Your task to perform on an android device: Open Android settings Image 0: 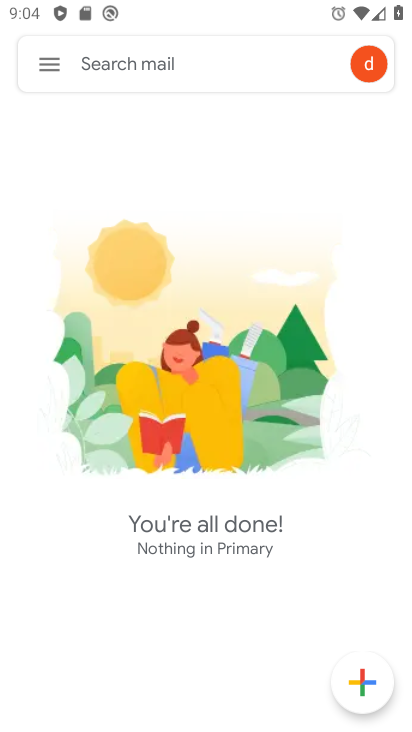
Step 0: press home button
Your task to perform on an android device: Open Android settings Image 1: 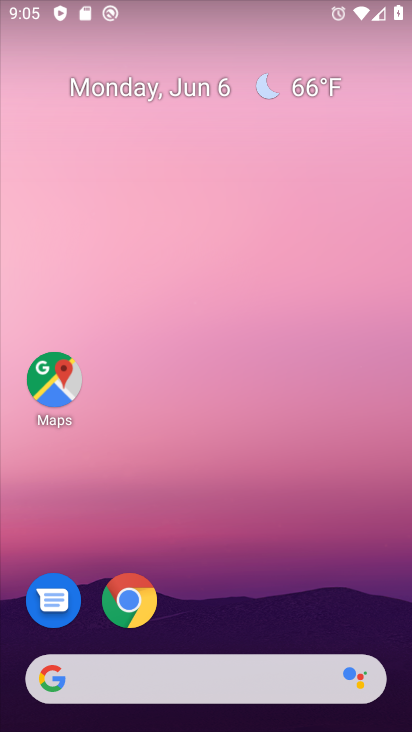
Step 1: drag from (118, 548) to (309, 162)
Your task to perform on an android device: Open Android settings Image 2: 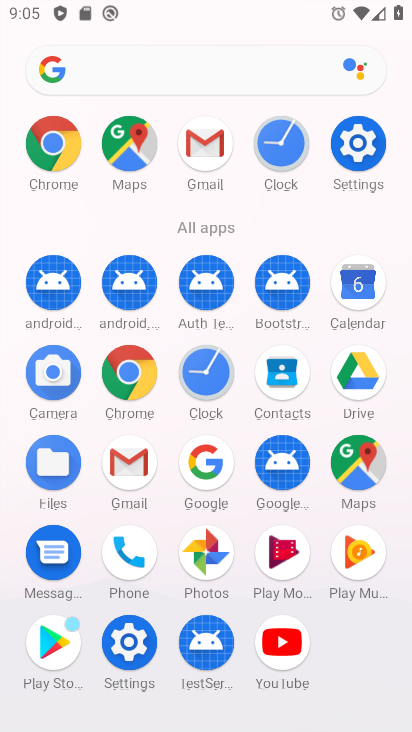
Step 2: click (373, 158)
Your task to perform on an android device: Open Android settings Image 3: 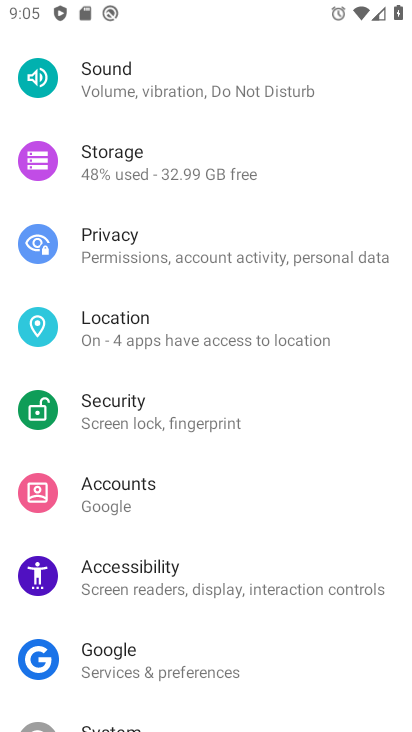
Step 3: drag from (12, 527) to (267, 189)
Your task to perform on an android device: Open Android settings Image 4: 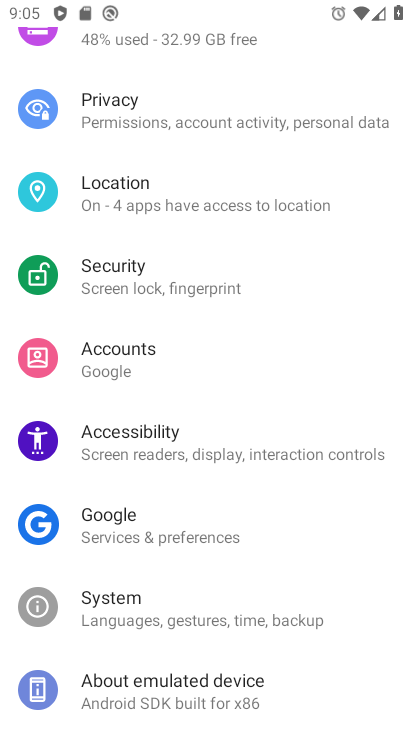
Step 4: click (80, 703)
Your task to perform on an android device: Open Android settings Image 5: 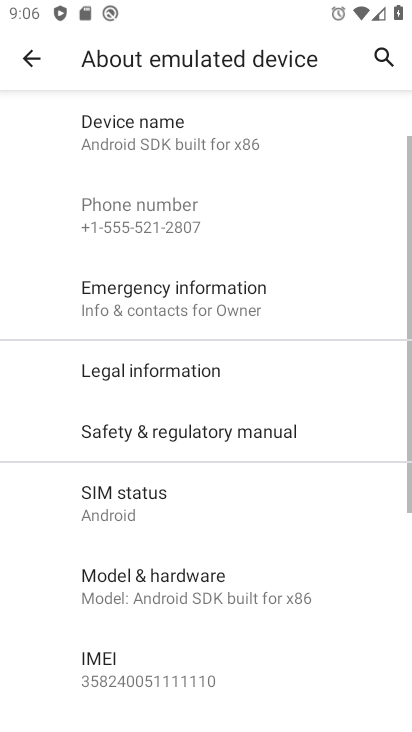
Step 5: task complete